Your task to perform on an android device: remove spam from my inbox in the gmail app Image 0: 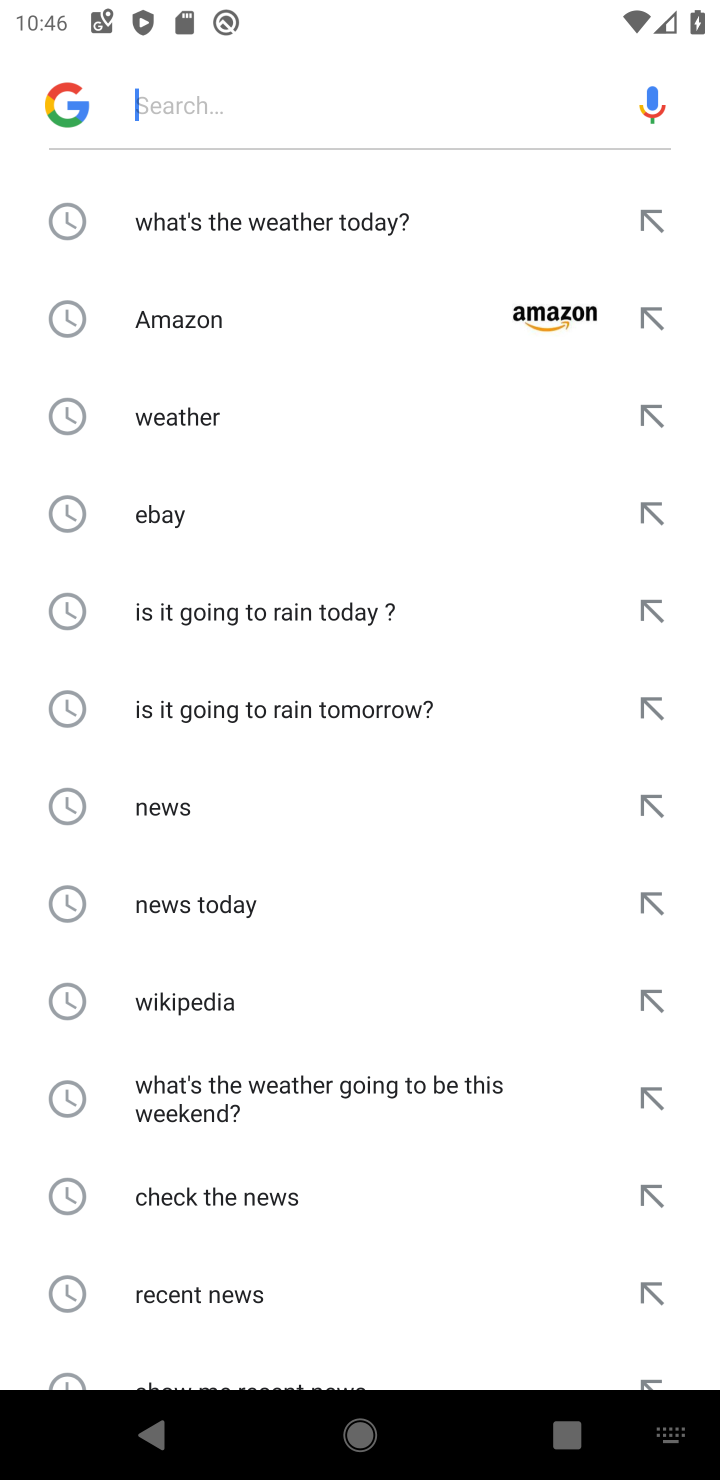
Step 0: press home button
Your task to perform on an android device: remove spam from my inbox in the gmail app Image 1: 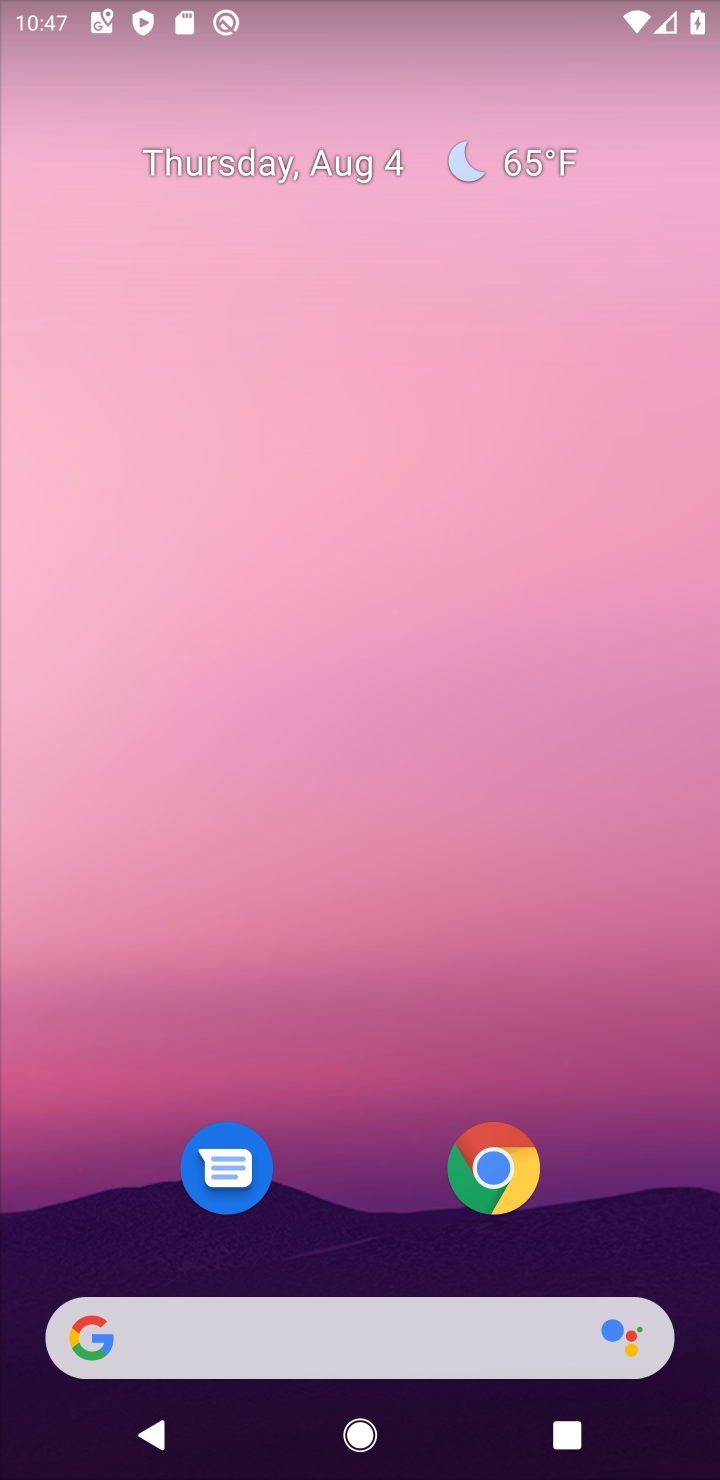
Step 1: drag from (609, 1159) to (492, 10)
Your task to perform on an android device: remove spam from my inbox in the gmail app Image 2: 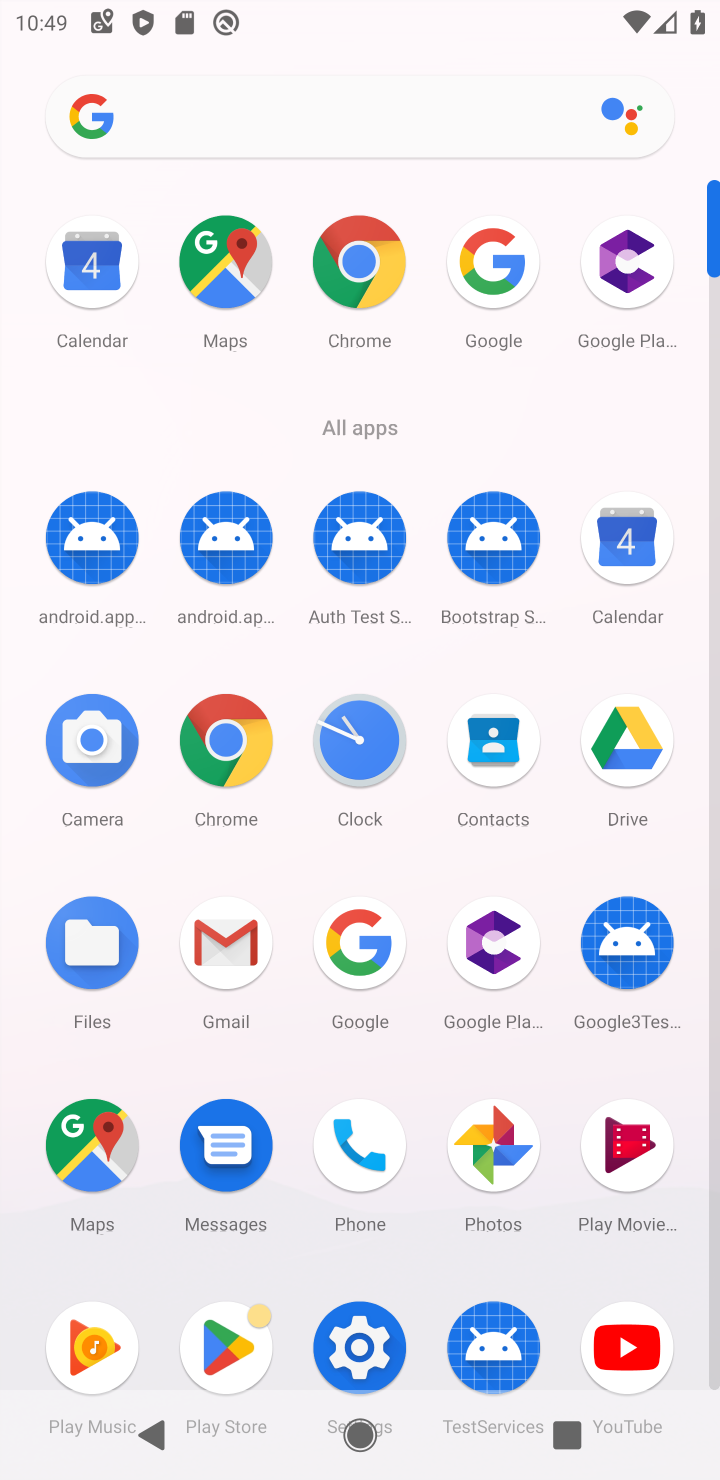
Step 2: click (233, 932)
Your task to perform on an android device: remove spam from my inbox in the gmail app Image 3: 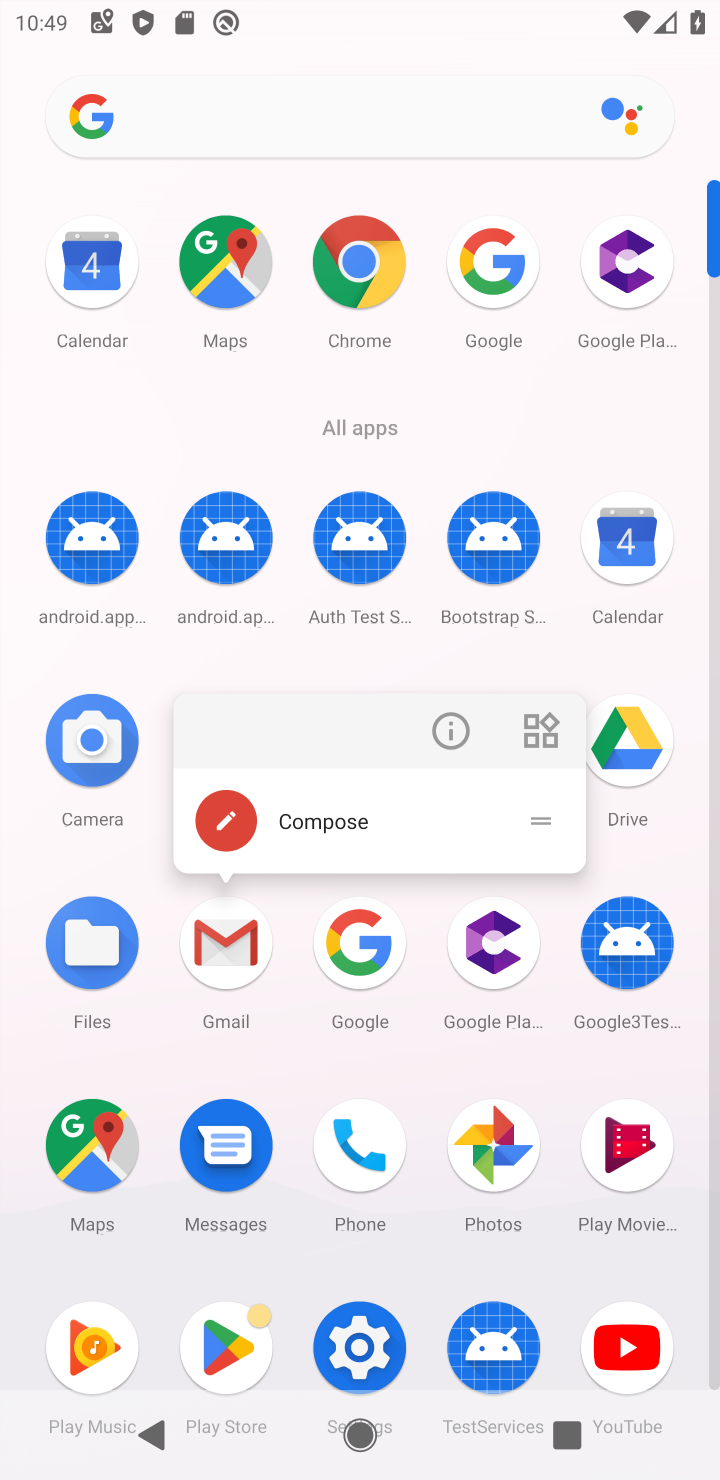
Step 3: click (228, 958)
Your task to perform on an android device: remove spam from my inbox in the gmail app Image 4: 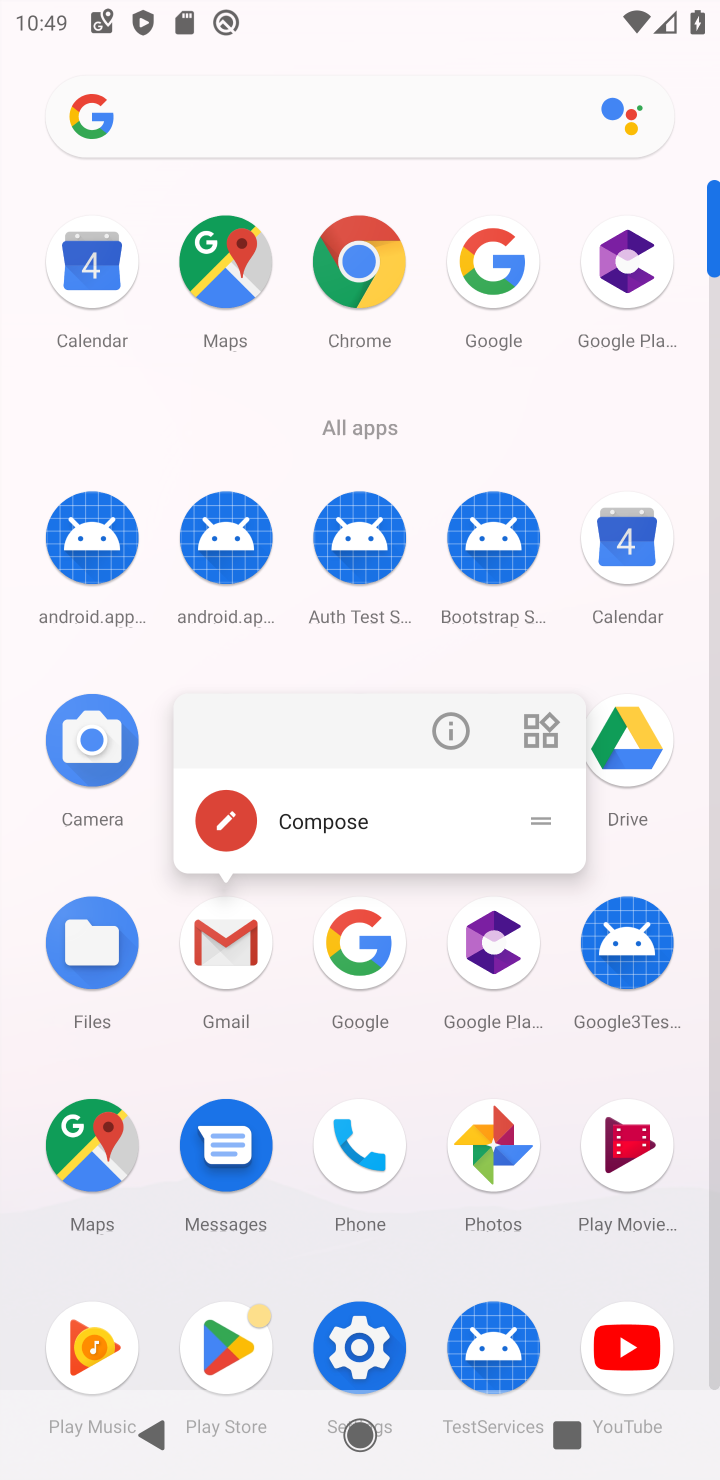
Step 4: click (228, 958)
Your task to perform on an android device: remove spam from my inbox in the gmail app Image 5: 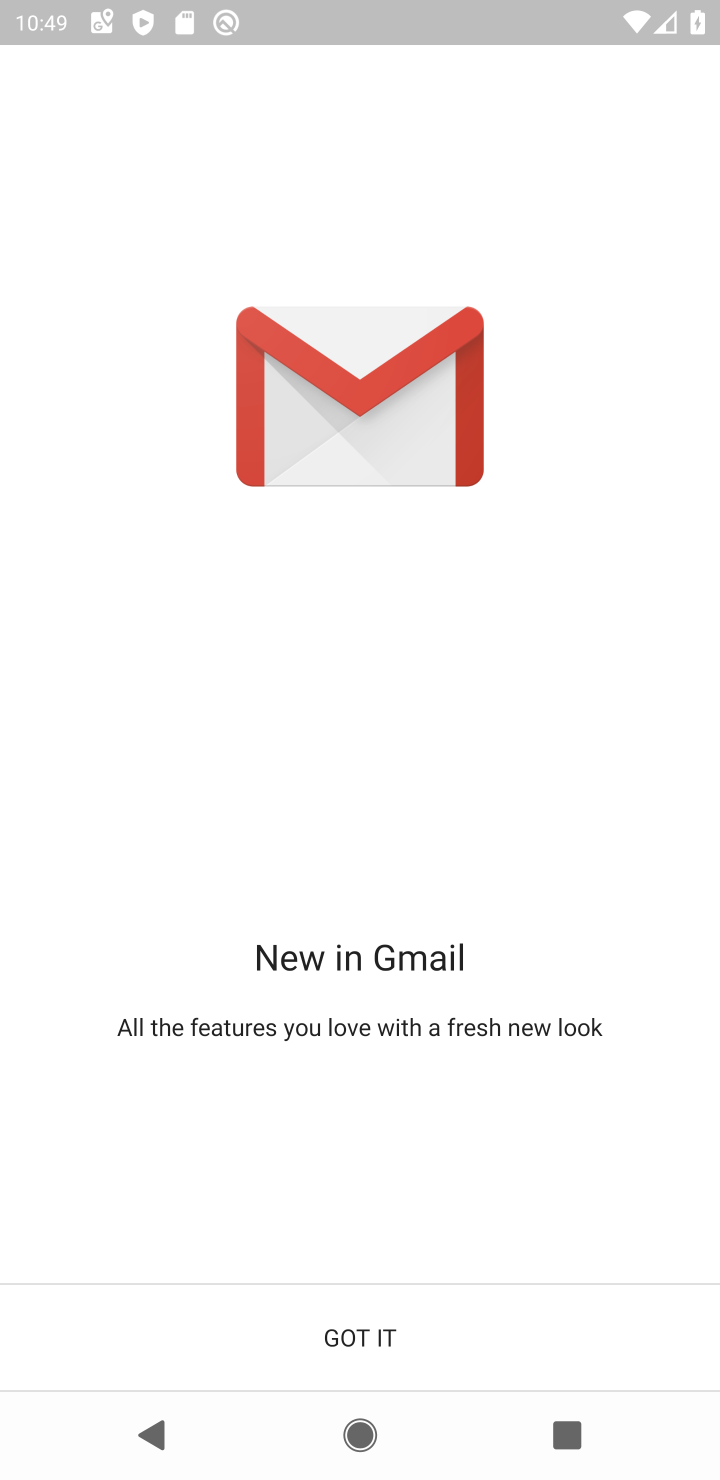
Step 5: click (423, 1327)
Your task to perform on an android device: remove spam from my inbox in the gmail app Image 6: 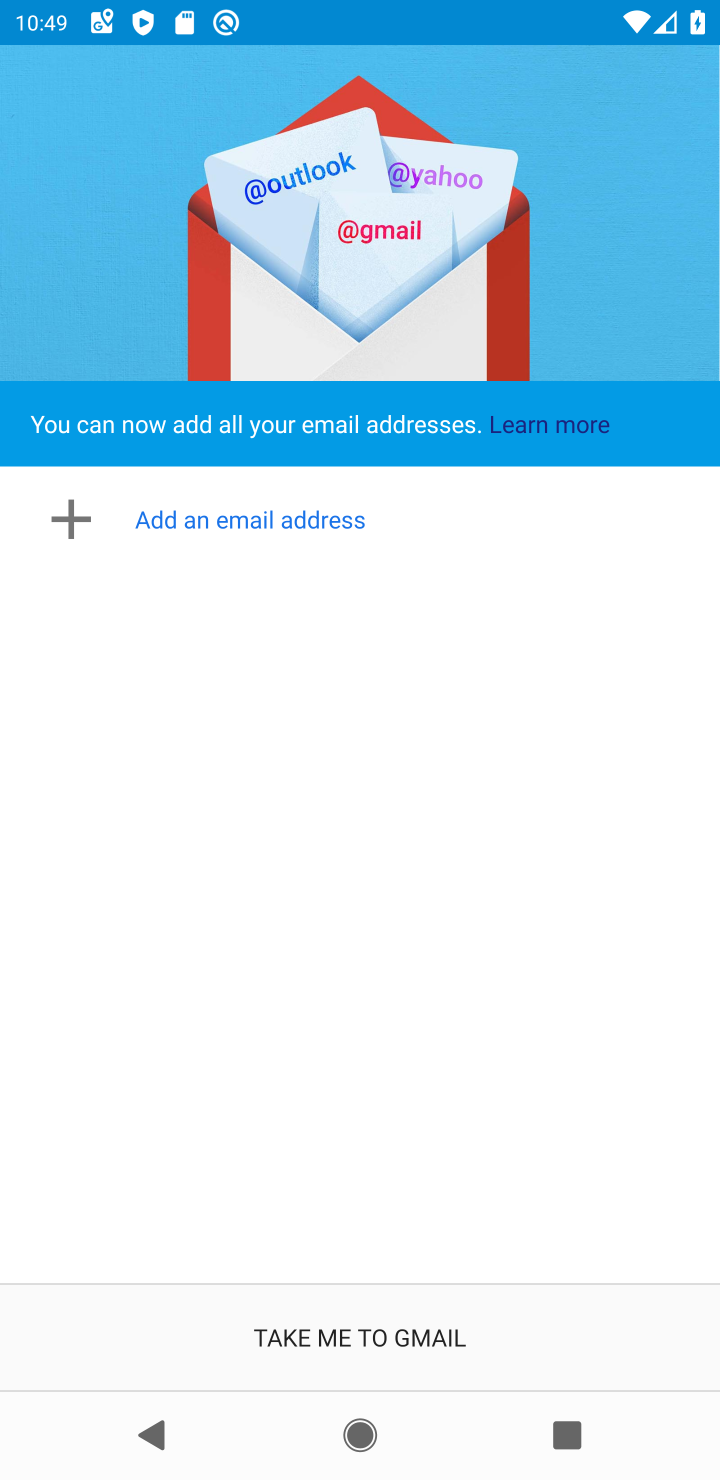
Step 6: click (423, 1327)
Your task to perform on an android device: remove spam from my inbox in the gmail app Image 7: 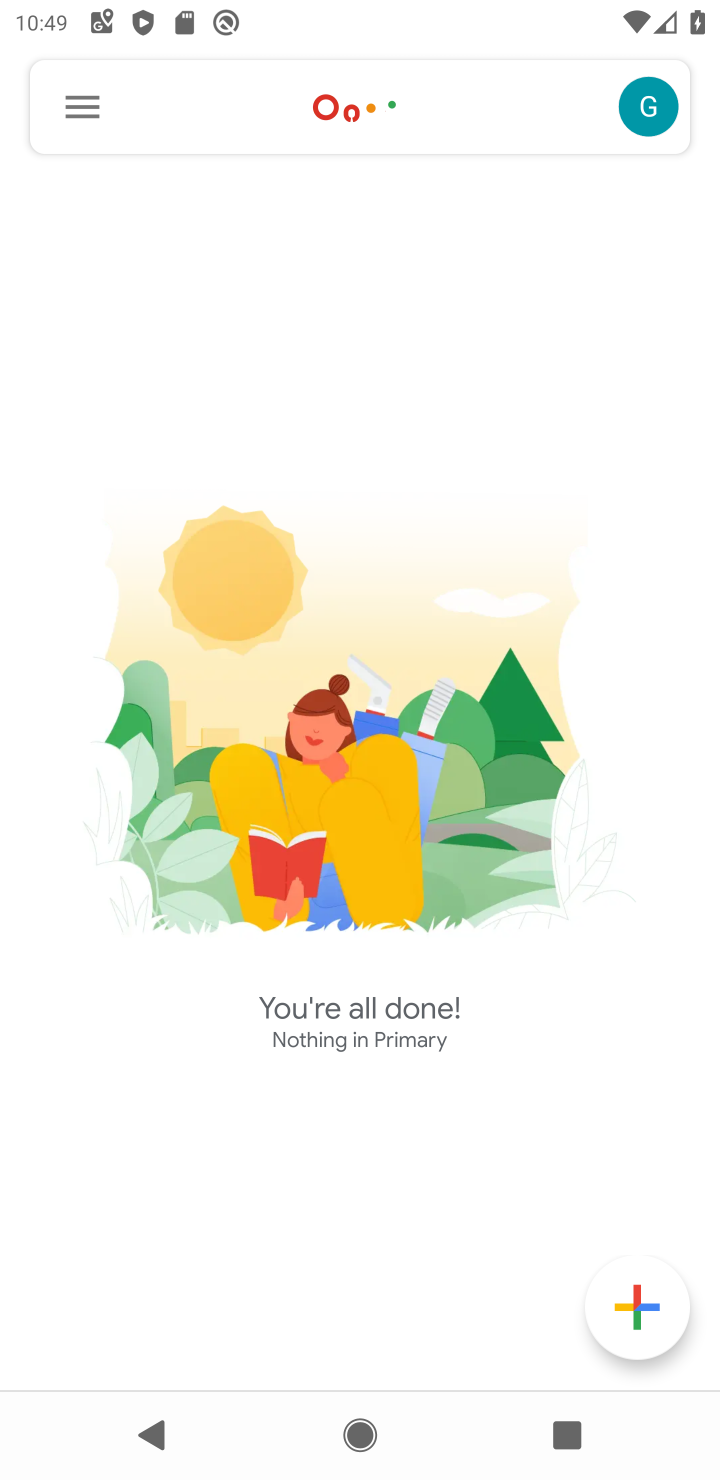
Step 7: task complete